Your task to perform on an android device: Open calendar and show me the first week of next month Image 0: 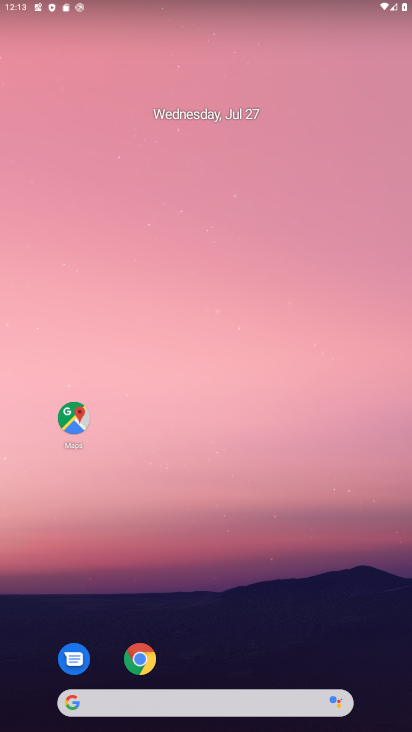
Step 0: press home button
Your task to perform on an android device: Open calendar and show me the first week of next month Image 1: 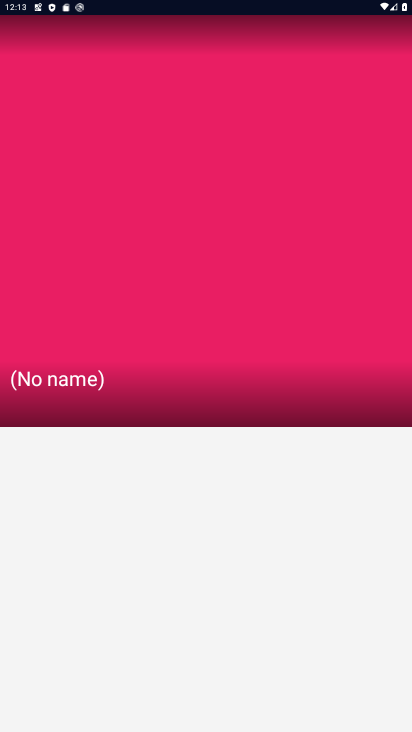
Step 1: drag from (221, 480) to (228, 84)
Your task to perform on an android device: Open calendar and show me the first week of next month Image 2: 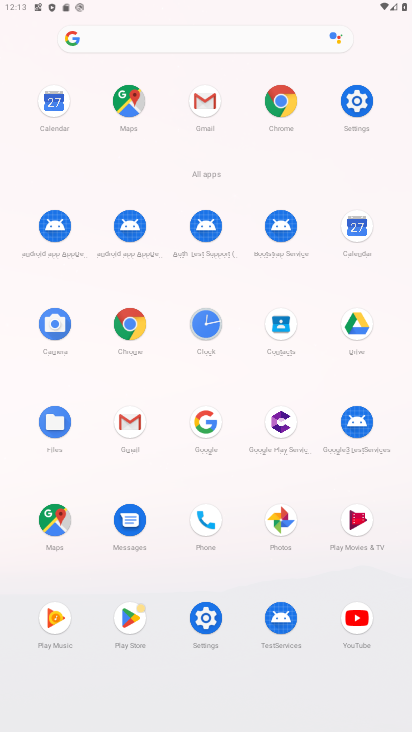
Step 2: click (355, 223)
Your task to perform on an android device: Open calendar and show me the first week of next month Image 3: 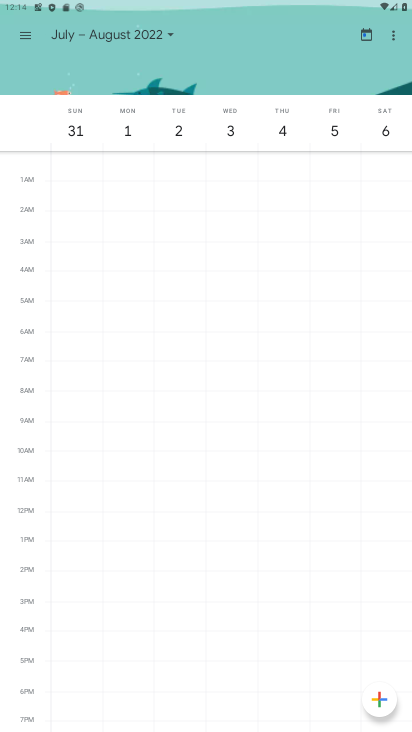
Step 3: task complete